Your task to perform on an android device: see sites visited before in the chrome app Image 0: 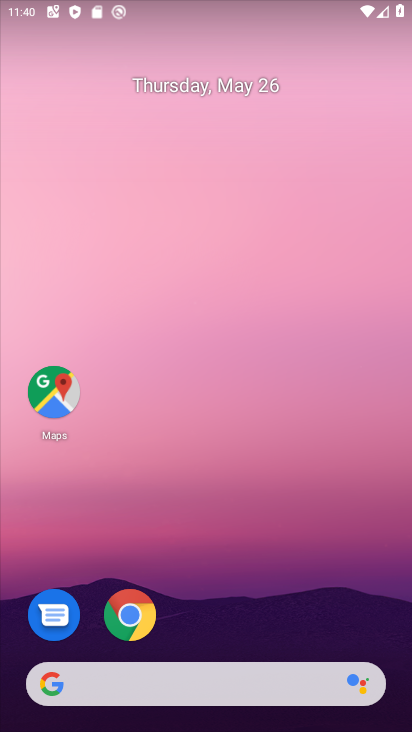
Step 0: click (122, 623)
Your task to perform on an android device: see sites visited before in the chrome app Image 1: 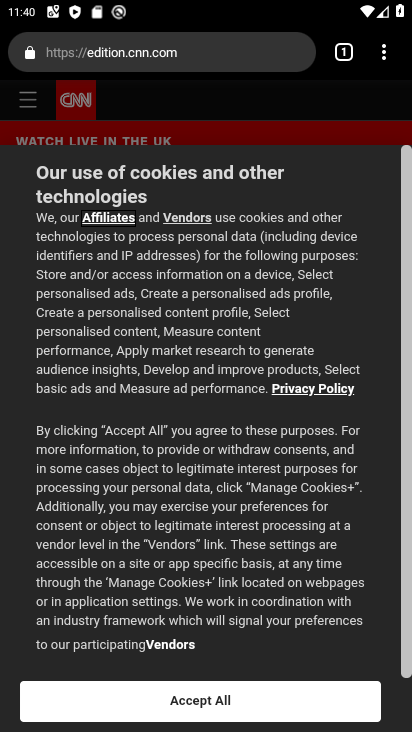
Step 1: click (382, 48)
Your task to perform on an android device: see sites visited before in the chrome app Image 2: 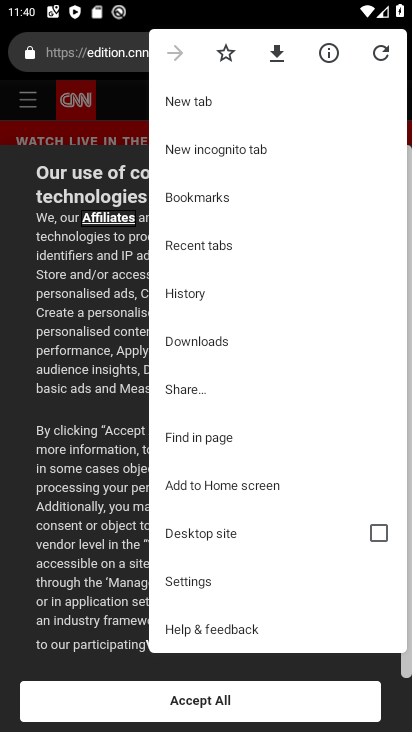
Step 2: click (230, 292)
Your task to perform on an android device: see sites visited before in the chrome app Image 3: 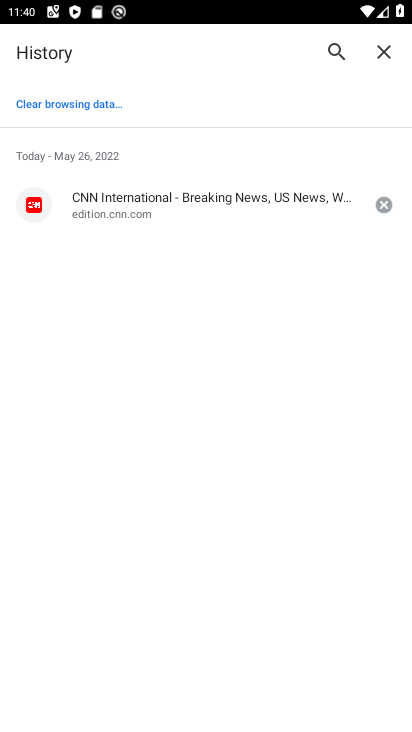
Step 3: task complete